Your task to perform on an android device: Show me the alarms in the clock app Image 0: 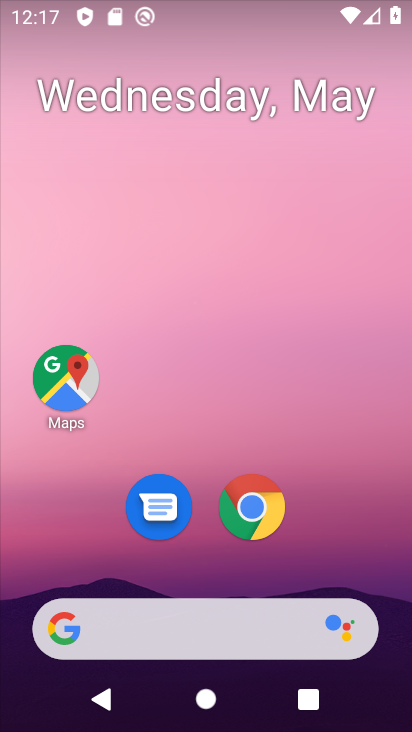
Step 0: drag from (165, 549) to (286, 82)
Your task to perform on an android device: Show me the alarms in the clock app Image 1: 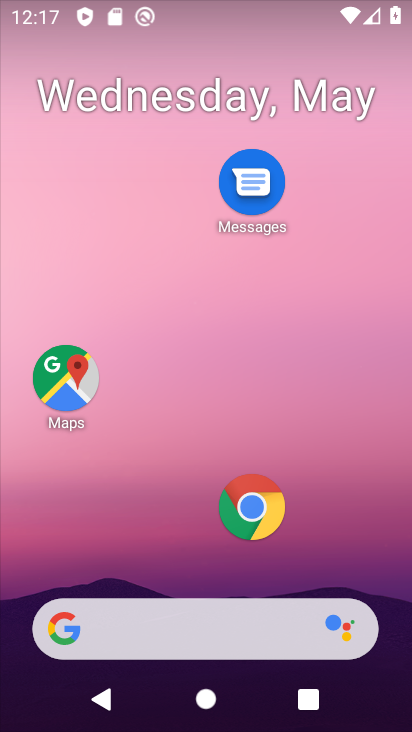
Step 1: drag from (172, 620) to (294, 102)
Your task to perform on an android device: Show me the alarms in the clock app Image 2: 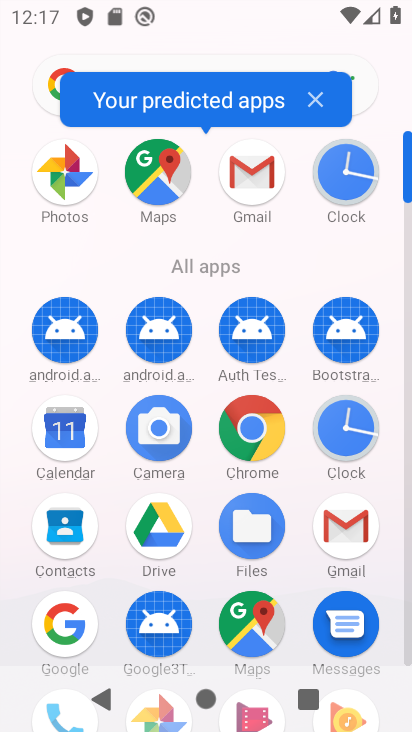
Step 2: click (364, 431)
Your task to perform on an android device: Show me the alarms in the clock app Image 3: 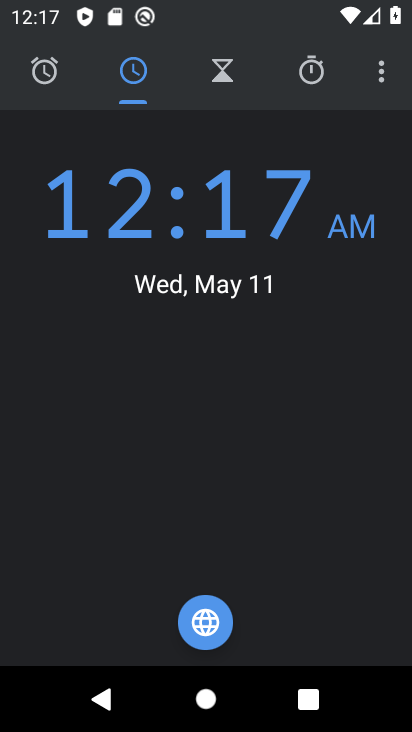
Step 3: click (66, 72)
Your task to perform on an android device: Show me the alarms in the clock app Image 4: 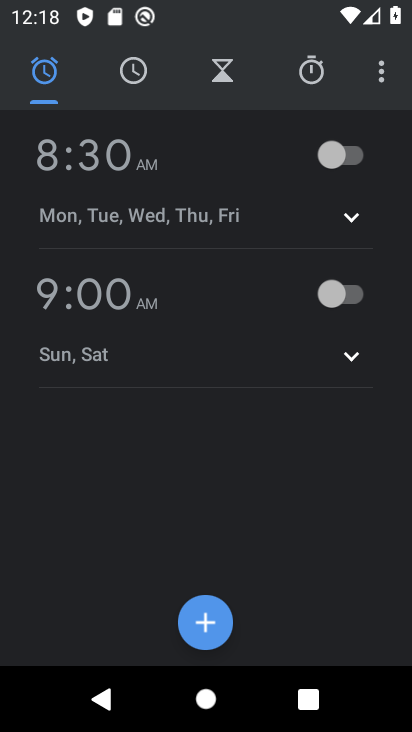
Step 4: task complete